Your task to perform on an android device: open sync settings in chrome Image 0: 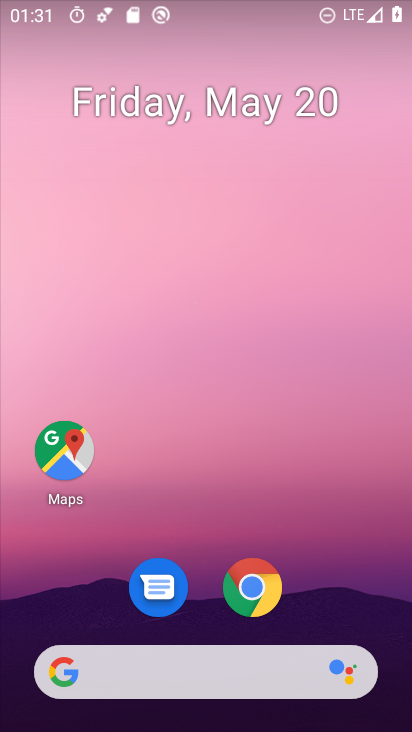
Step 0: drag from (373, 612) to (345, 193)
Your task to perform on an android device: open sync settings in chrome Image 1: 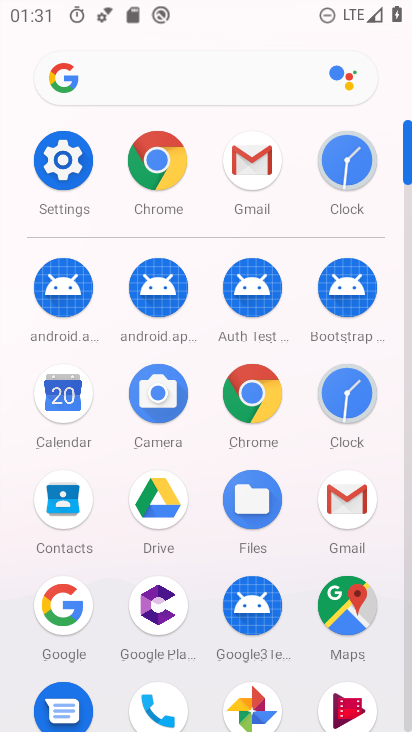
Step 1: click (151, 164)
Your task to perform on an android device: open sync settings in chrome Image 2: 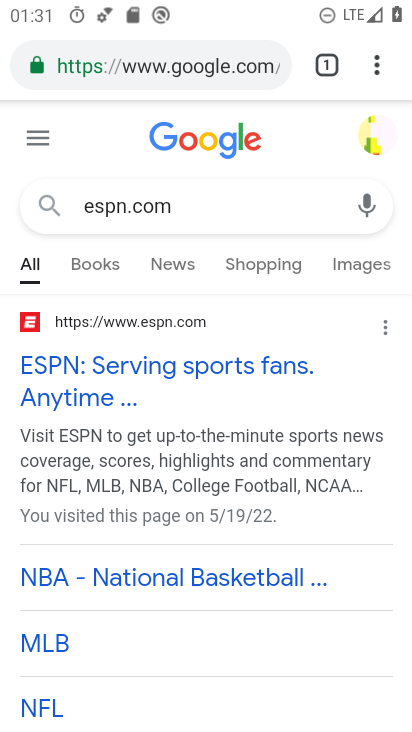
Step 2: click (380, 76)
Your task to perform on an android device: open sync settings in chrome Image 3: 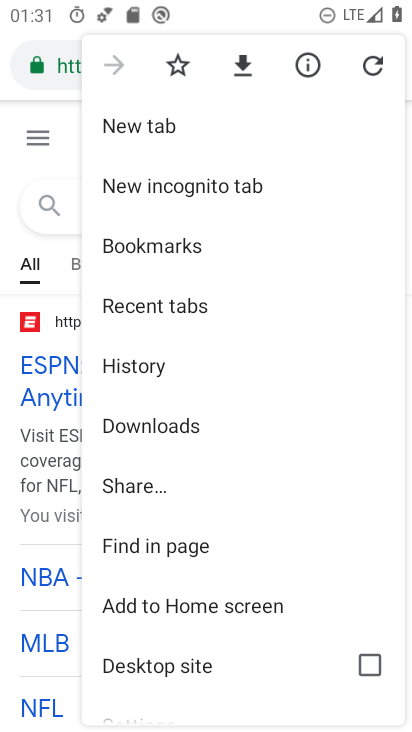
Step 3: drag from (313, 501) to (319, 433)
Your task to perform on an android device: open sync settings in chrome Image 4: 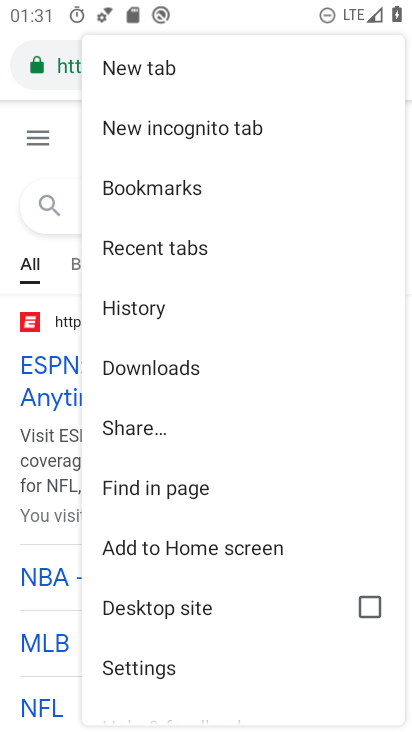
Step 4: drag from (295, 566) to (312, 456)
Your task to perform on an android device: open sync settings in chrome Image 5: 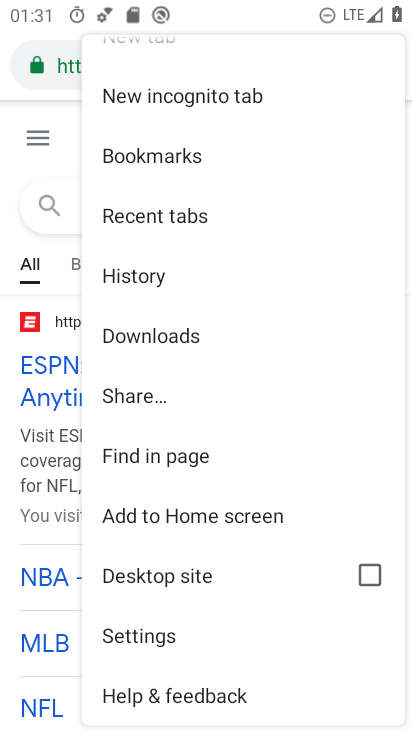
Step 5: click (184, 646)
Your task to perform on an android device: open sync settings in chrome Image 6: 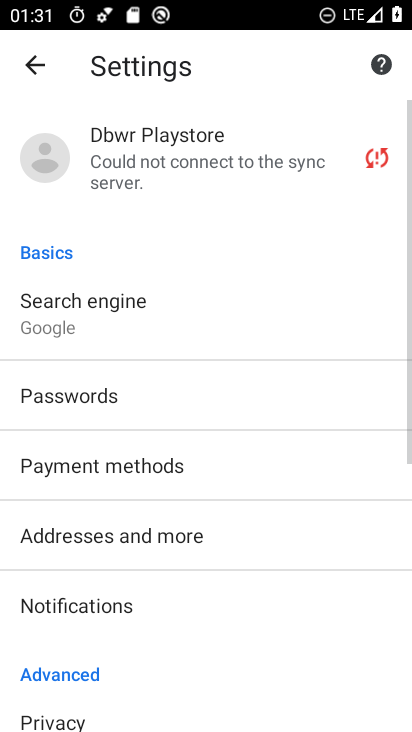
Step 6: drag from (316, 607) to (320, 516)
Your task to perform on an android device: open sync settings in chrome Image 7: 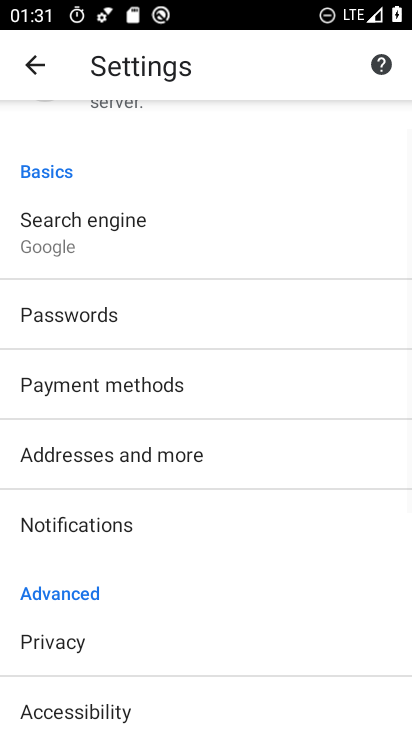
Step 7: drag from (320, 621) to (318, 529)
Your task to perform on an android device: open sync settings in chrome Image 8: 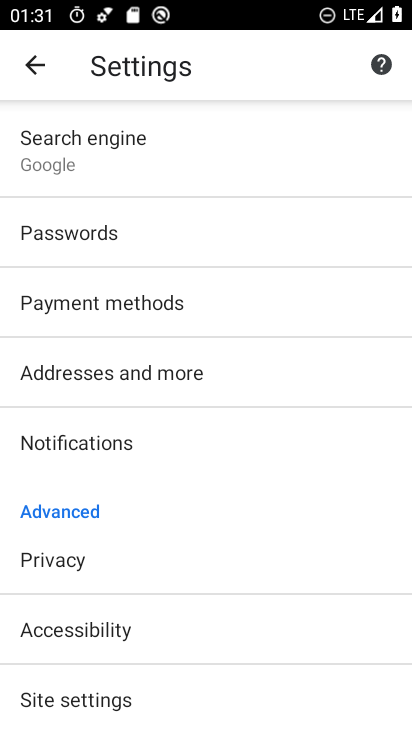
Step 8: drag from (323, 600) to (333, 481)
Your task to perform on an android device: open sync settings in chrome Image 9: 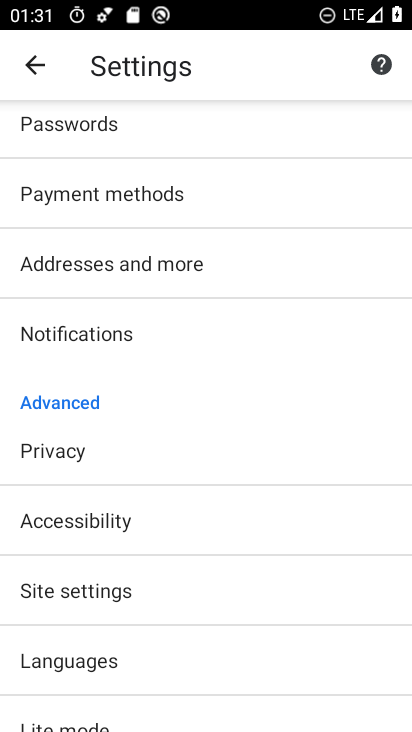
Step 9: drag from (328, 604) to (333, 481)
Your task to perform on an android device: open sync settings in chrome Image 10: 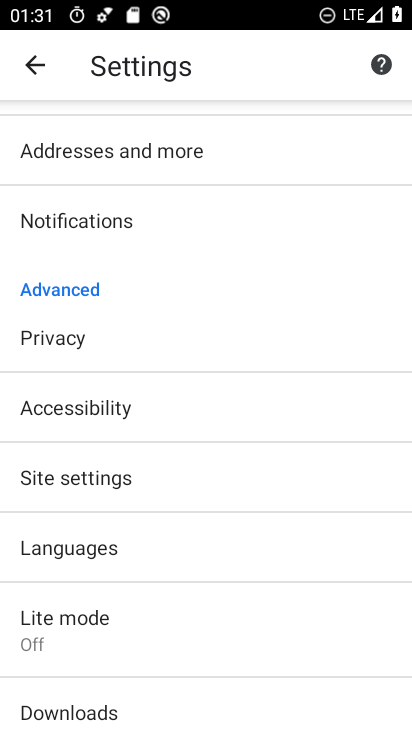
Step 10: drag from (327, 600) to (331, 507)
Your task to perform on an android device: open sync settings in chrome Image 11: 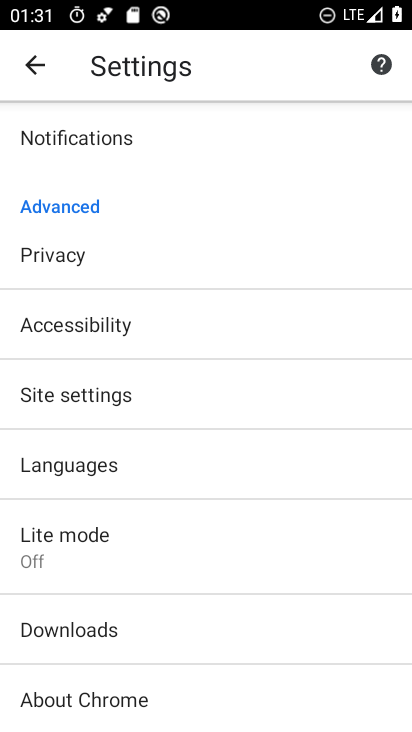
Step 11: drag from (306, 648) to (312, 510)
Your task to perform on an android device: open sync settings in chrome Image 12: 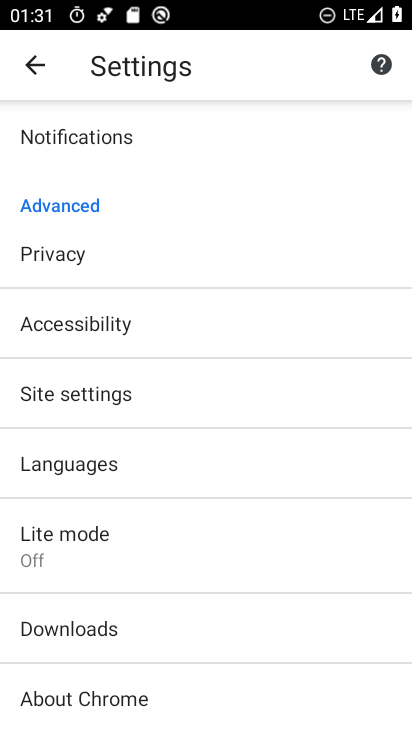
Step 12: drag from (305, 381) to (302, 540)
Your task to perform on an android device: open sync settings in chrome Image 13: 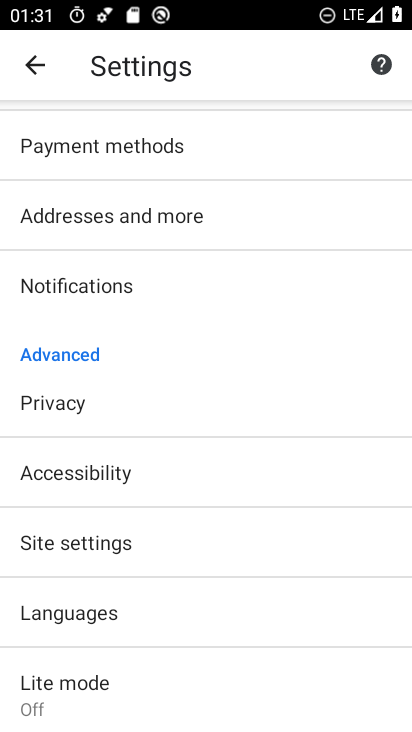
Step 13: drag from (278, 314) to (277, 422)
Your task to perform on an android device: open sync settings in chrome Image 14: 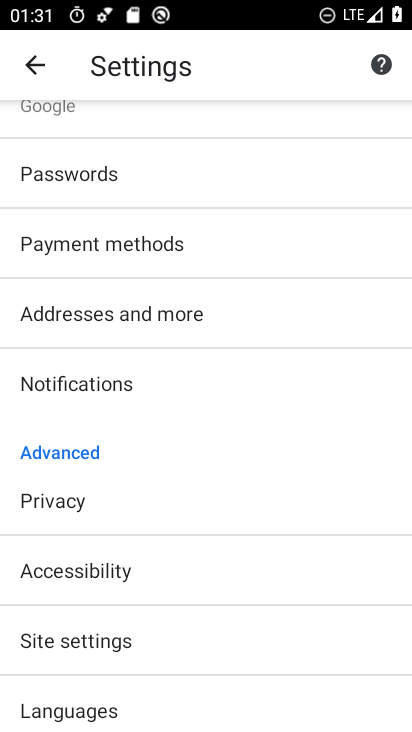
Step 14: drag from (269, 276) to (270, 473)
Your task to perform on an android device: open sync settings in chrome Image 15: 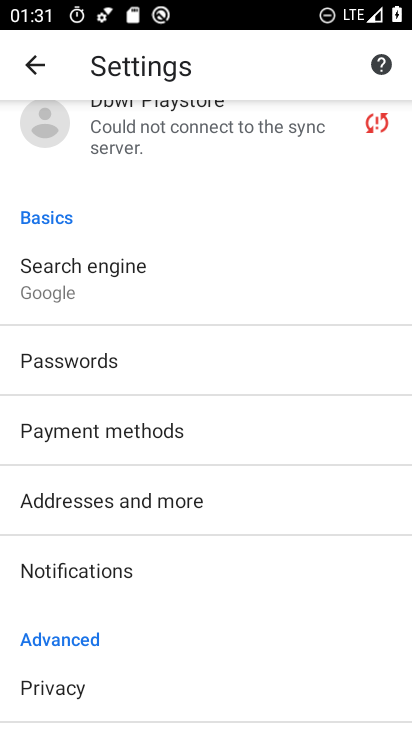
Step 15: drag from (297, 329) to (298, 482)
Your task to perform on an android device: open sync settings in chrome Image 16: 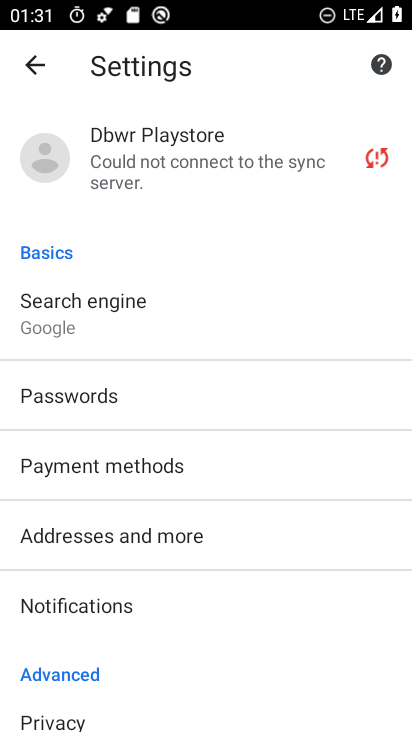
Step 16: drag from (317, 558) to (309, 418)
Your task to perform on an android device: open sync settings in chrome Image 17: 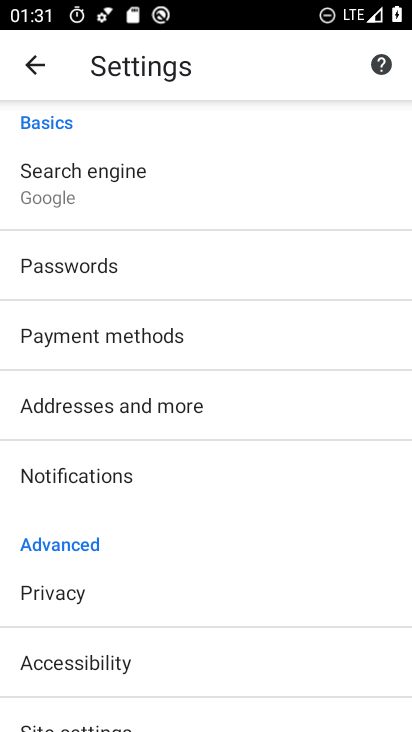
Step 17: drag from (291, 580) to (293, 471)
Your task to perform on an android device: open sync settings in chrome Image 18: 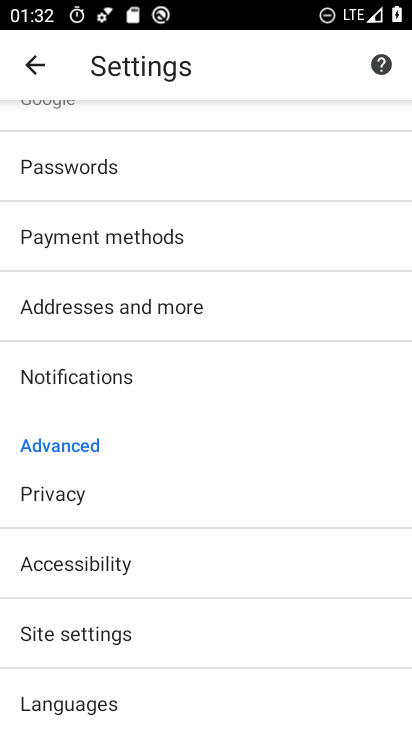
Step 18: drag from (292, 628) to (293, 523)
Your task to perform on an android device: open sync settings in chrome Image 19: 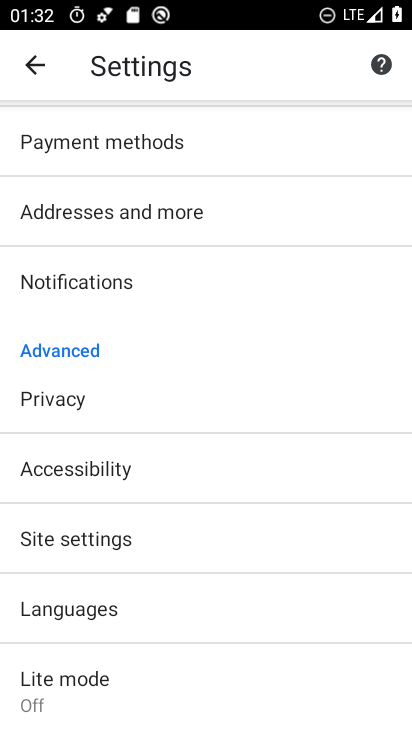
Step 19: drag from (293, 654) to (299, 525)
Your task to perform on an android device: open sync settings in chrome Image 20: 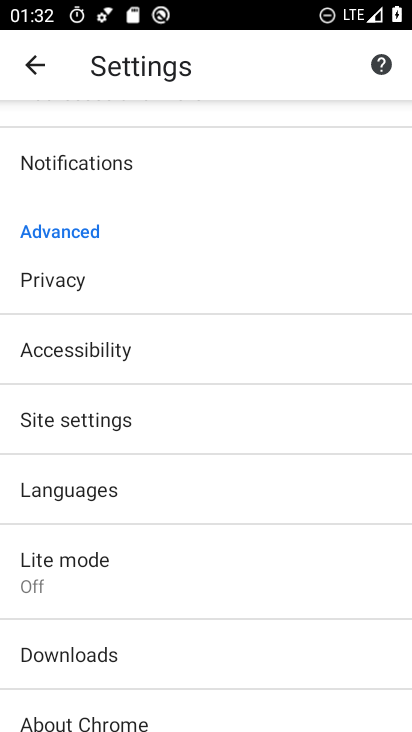
Step 20: drag from (296, 624) to (295, 517)
Your task to perform on an android device: open sync settings in chrome Image 21: 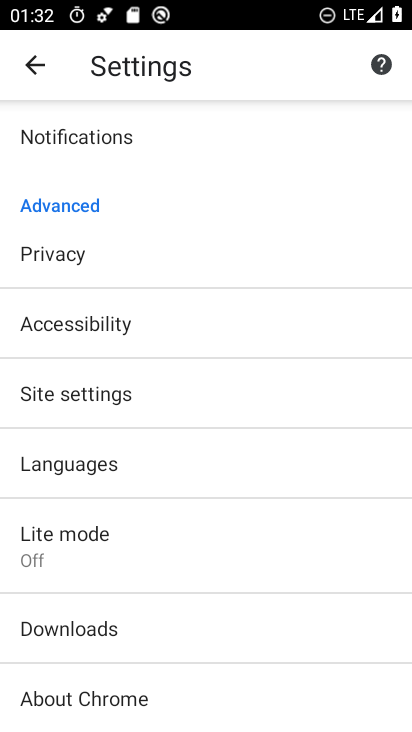
Step 21: click (226, 394)
Your task to perform on an android device: open sync settings in chrome Image 22: 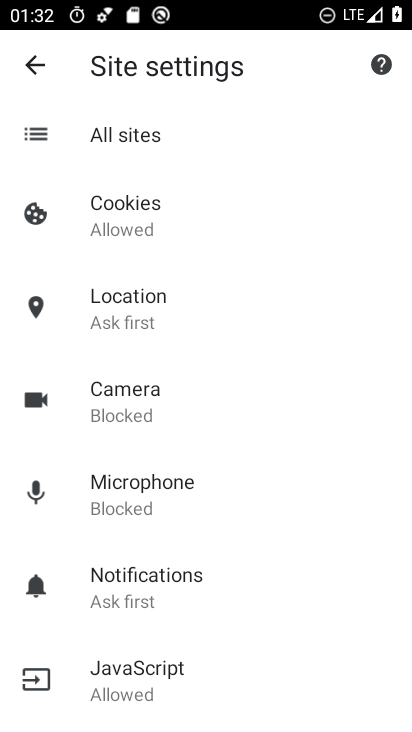
Step 22: drag from (309, 599) to (302, 473)
Your task to perform on an android device: open sync settings in chrome Image 23: 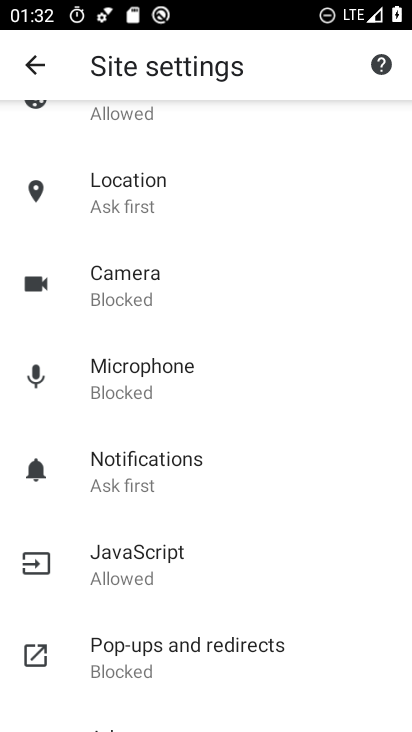
Step 23: drag from (328, 651) to (326, 583)
Your task to perform on an android device: open sync settings in chrome Image 24: 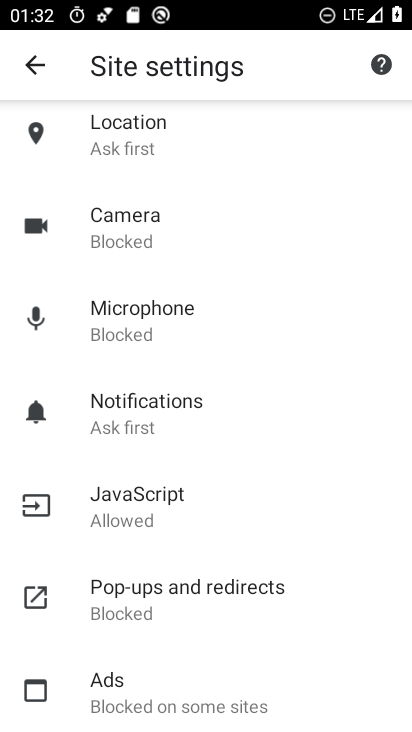
Step 24: drag from (324, 673) to (324, 566)
Your task to perform on an android device: open sync settings in chrome Image 25: 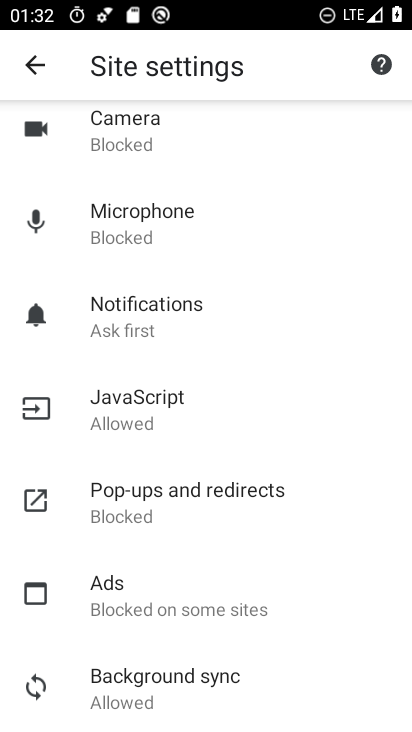
Step 25: drag from (313, 671) to (321, 581)
Your task to perform on an android device: open sync settings in chrome Image 26: 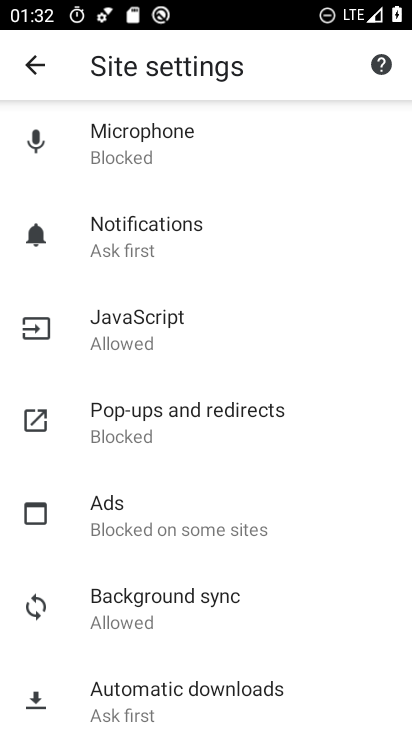
Step 26: click (174, 615)
Your task to perform on an android device: open sync settings in chrome Image 27: 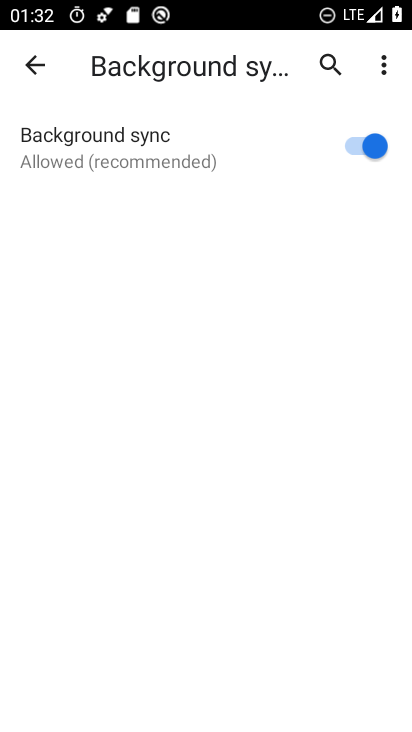
Step 27: task complete